Your task to perform on an android device: check out phone information Image 0: 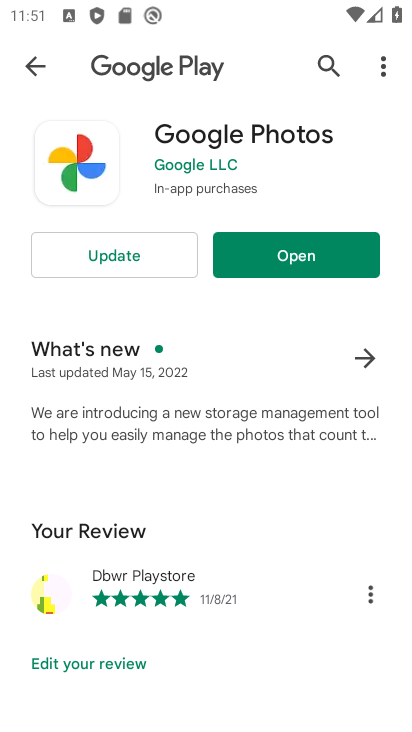
Step 0: press home button
Your task to perform on an android device: check out phone information Image 1: 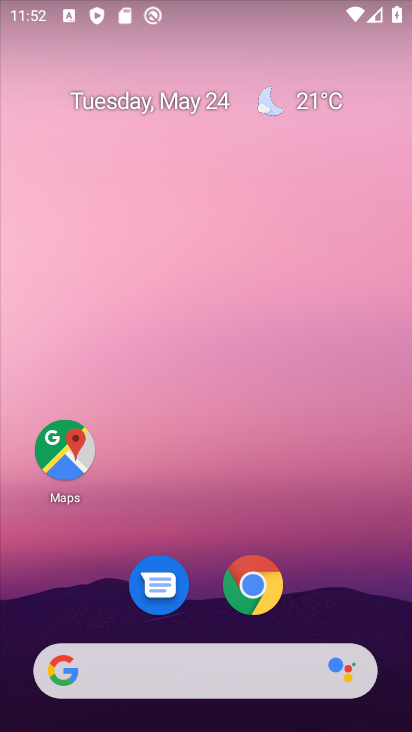
Step 1: drag from (210, 532) to (247, 55)
Your task to perform on an android device: check out phone information Image 2: 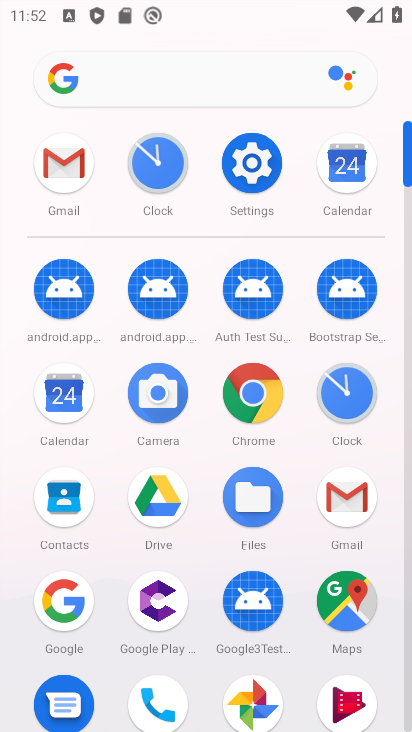
Step 2: drag from (183, 439) to (225, 231)
Your task to perform on an android device: check out phone information Image 3: 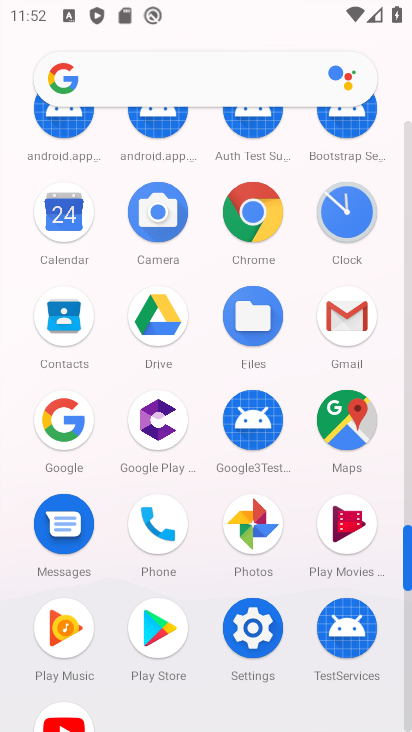
Step 3: click (168, 504)
Your task to perform on an android device: check out phone information Image 4: 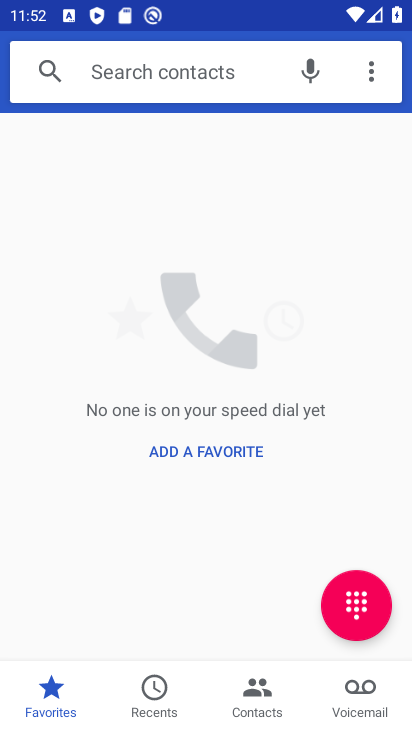
Step 4: click (378, 78)
Your task to perform on an android device: check out phone information Image 5: 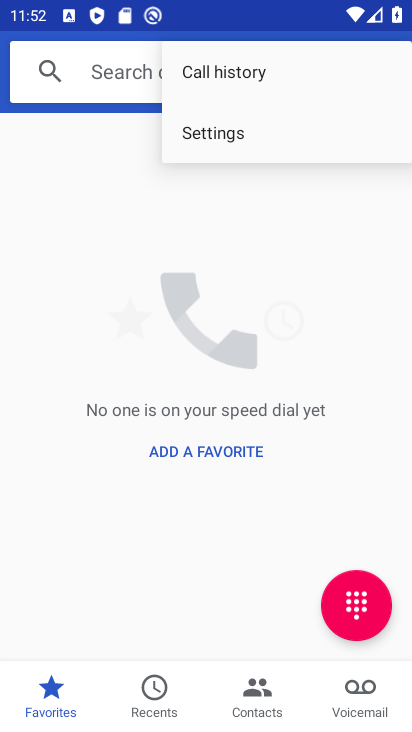
Step 5: click (326, 132)
Your task to perform on an android device: check out phone information Image 6: 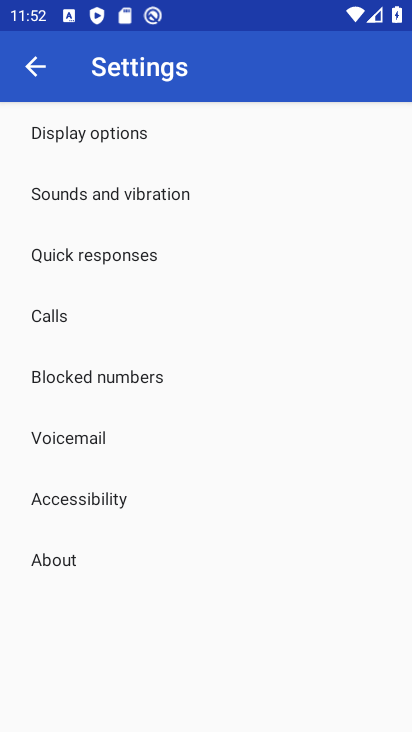
Step 6: click (44, 554)
Your task to perform on an android device: check out phone information Image 7: 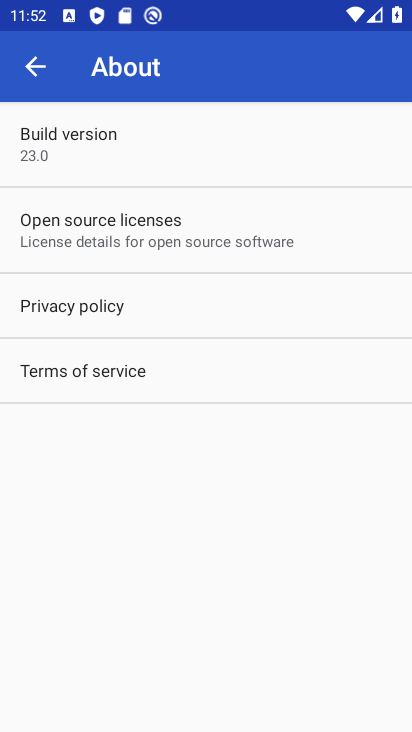
Step 7: task complete